Your task to perform on an android device: stop showing notifications on the lock screen Image 0: 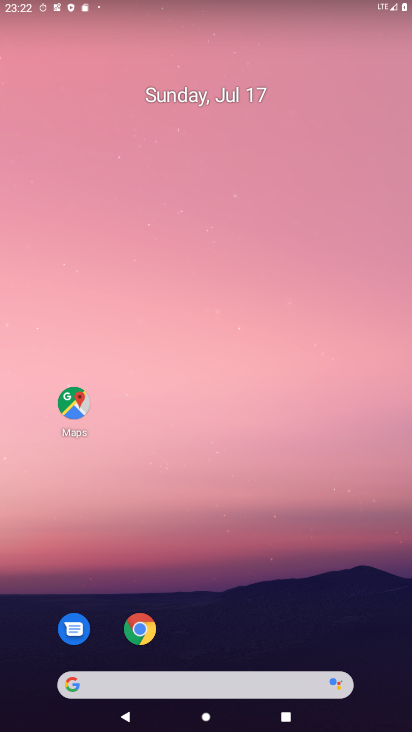
Step 0: drag from (237, 603) to (235, 33)
Your task to perform on an android device: stop showing notifications on the lock screen Image 1: 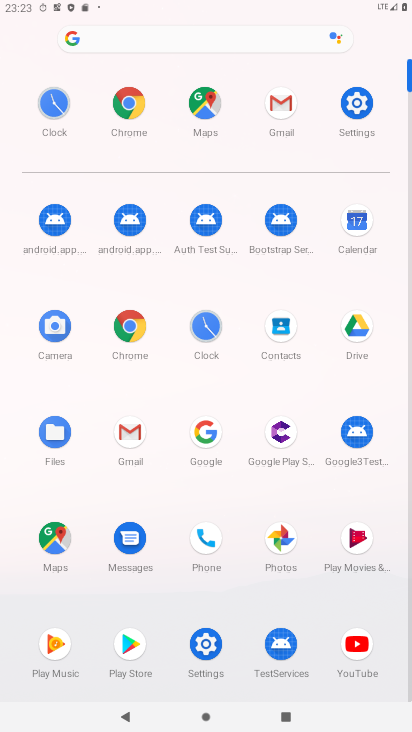
Step 1: click (358, 98)
Your task to perform on an android device: stop showing notifications on the lock screen Image 2: 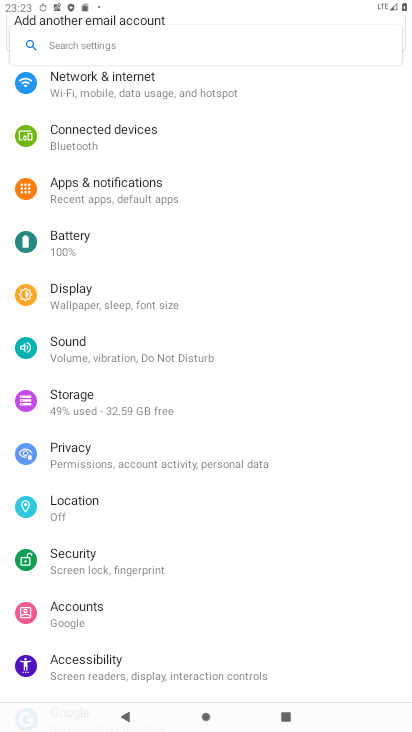
Step 2: click (83, 189)
Your task to perform on an android device: stop showing notifications on the lock screen Image 3: 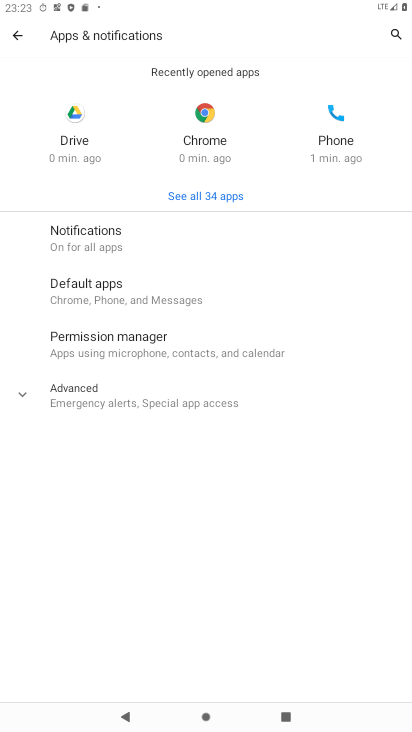
Step 3: click (79, 244)
Your task to perform on an android device: stop showing notifications on the lock screen Image 4: 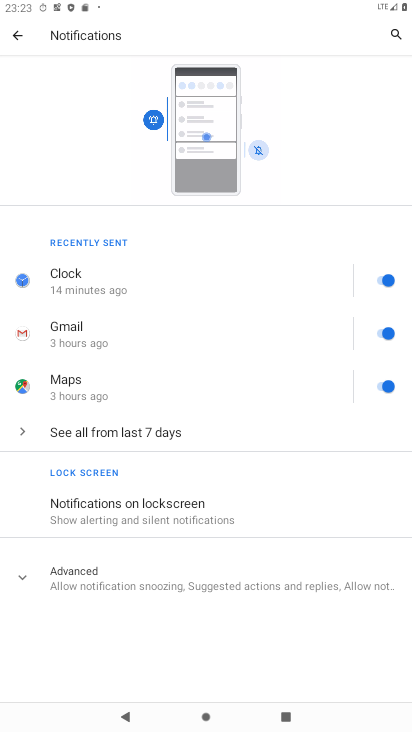
Step 4: click (124, 504)
Your task to perform on an android device: stop showing notifications on the lock screen Image 5: 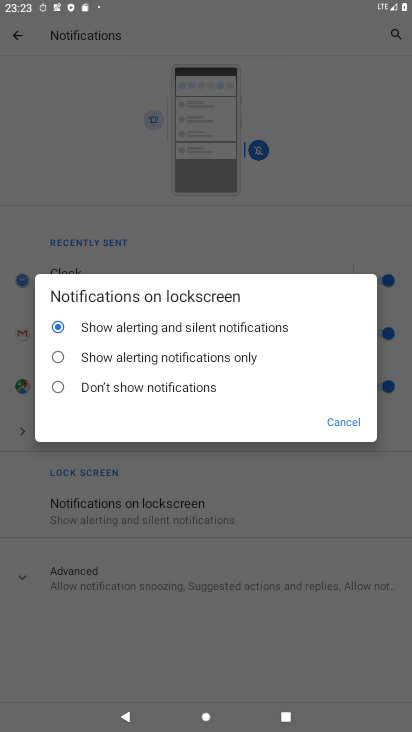
Step 5: click (59, 386)
Your task to perform on an android device: stop showing notifications on the lock screen Image 6: 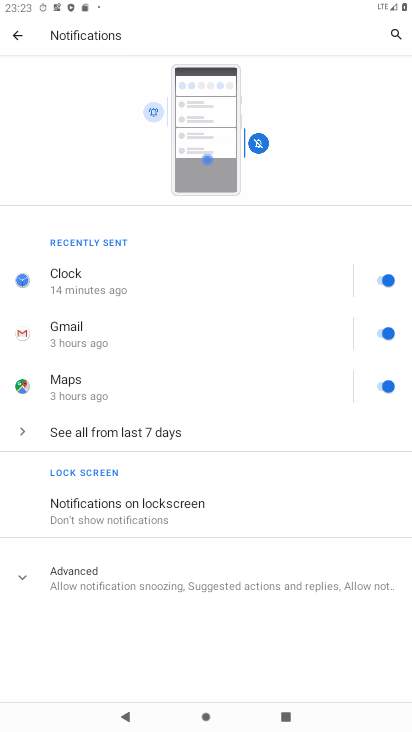
Step 6: task complete